Your task to perform on an android device: turn on airplane mode Image 0: 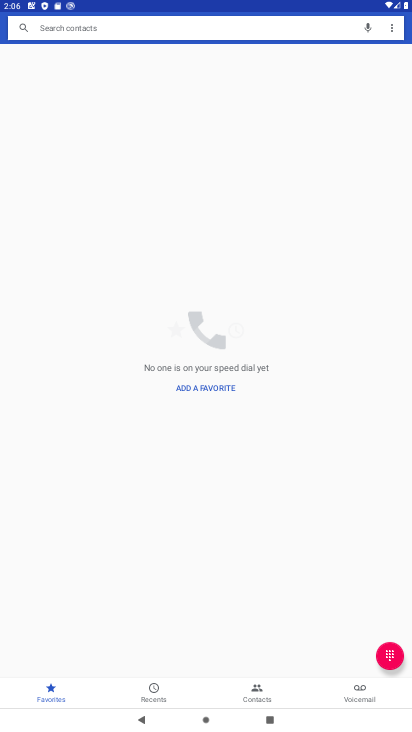
Step 0: drag from (323, 18) to (315, 541)
Your task to perform on an android device: turn on airplane mode Image 1: 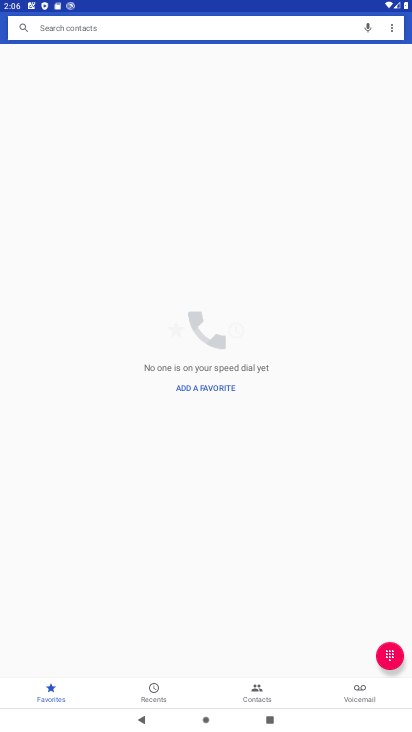
Step 1: drag from (187, 111) to (209, 605)
Your task to perform on an android device: turn on airplane mode Image 2: 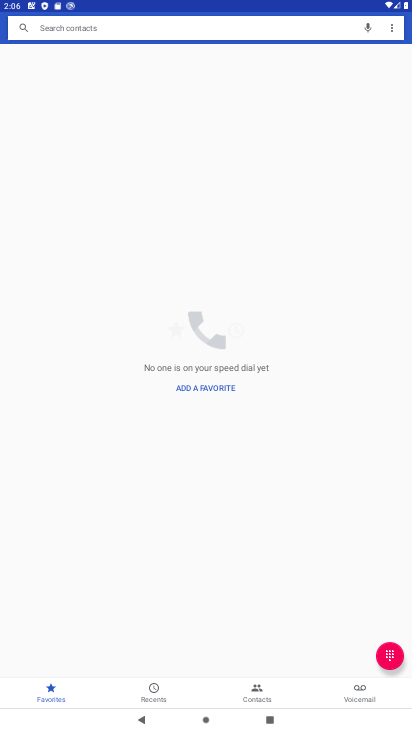
Step 2: drag from (236, 8) to (219, 609)
Your task to perform on an android device: turn on airplane mode Image 3: 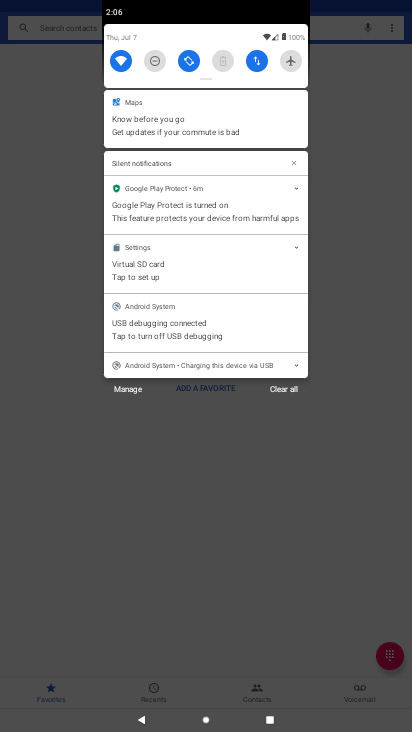
Step 3: drag from (234, 82) to (215, 618)
Your task to perform on an android device: turn on airplane mode Image 4: 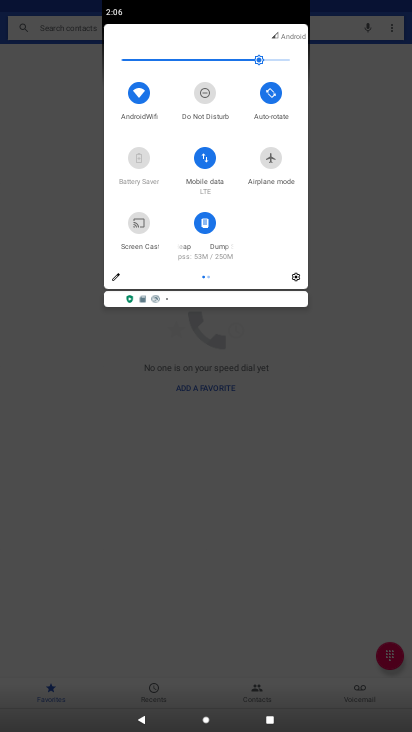
Step 4: click (277, 150)
Your task to perform on an android device: turn on airplane mode Image 5: 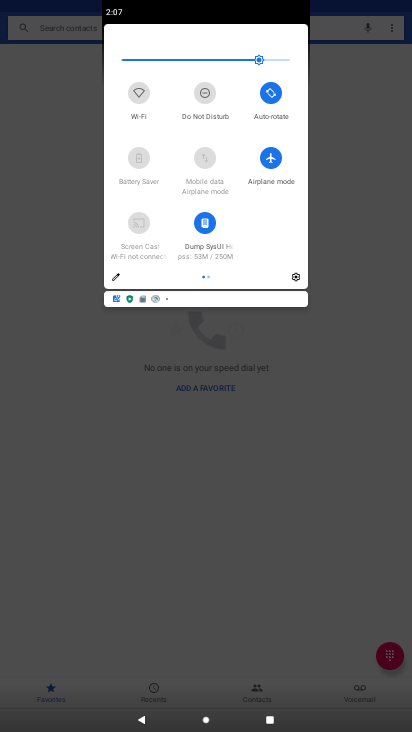
Step 5: task complete